Your task to perform on an android device: change the clock display to analog Image 0: 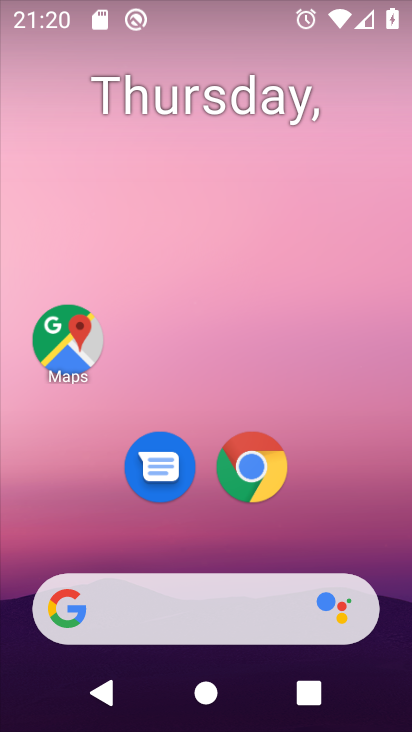
Step 0: drag from (273, 521) to (328, 206)
Your task to perform on an android device: change the clock display to analog Image 1: 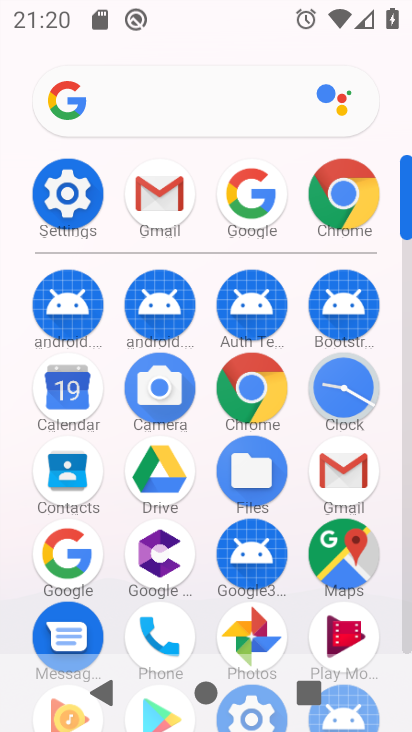
Step 1: click (339, 358)
Your task to perform on an android device: change the clock display to analog Image 2: 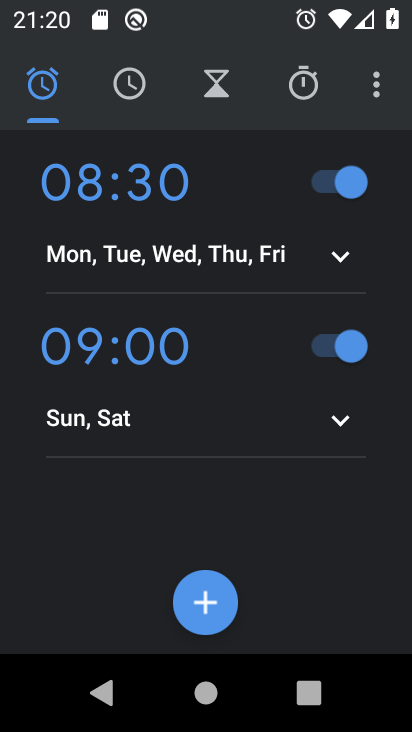
Step 2: click (370, 79)
Your task to perform on an android device: change the clock display to analog Image 3: 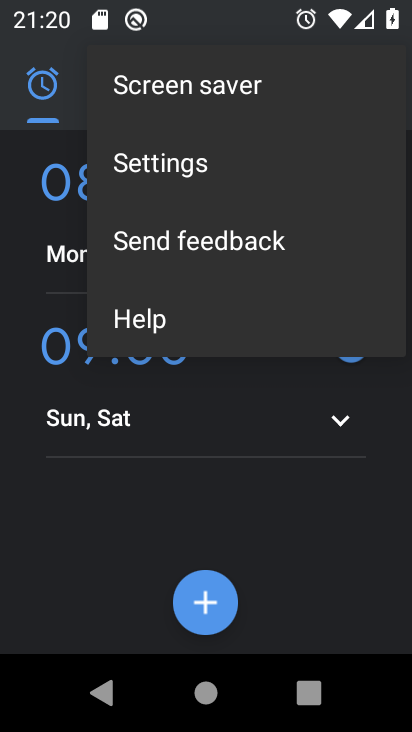
Step 3: click (174, 142)
Your task to perform on an android device: change the clock display to analog Image 4: 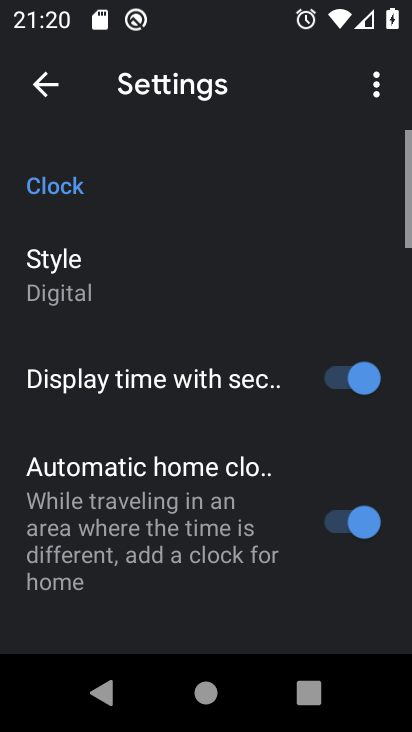
Step 4: click (109, 286)
Your task to perform on an android device: change the clock display to analog Image 5: 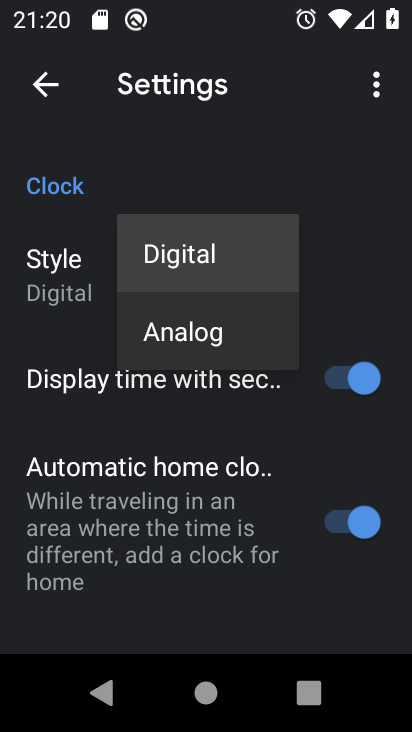
Step 5: click (206, 332)
Your task to perform on an android device: change the clock display to analog Image 6: 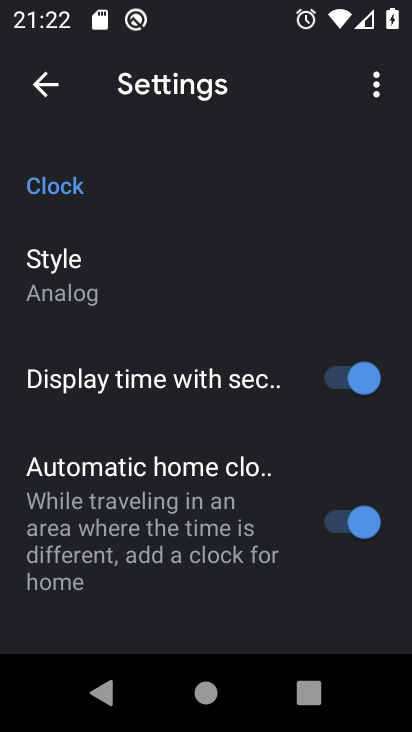
Step 6: task complete